Your task to perform on an android device: Open Google Chrome and click the shortcut for Amazon.com Image 0: 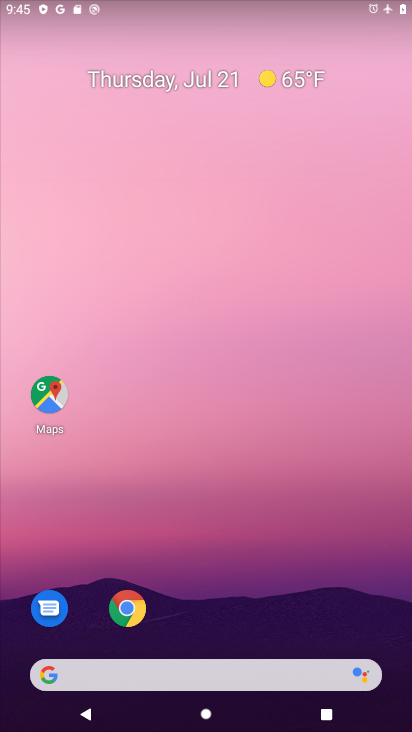
Step 0: click (128, 611)
Your task to perform on an android device: Open Google Chrome and click the shortcut for Amazon.com Image 1: 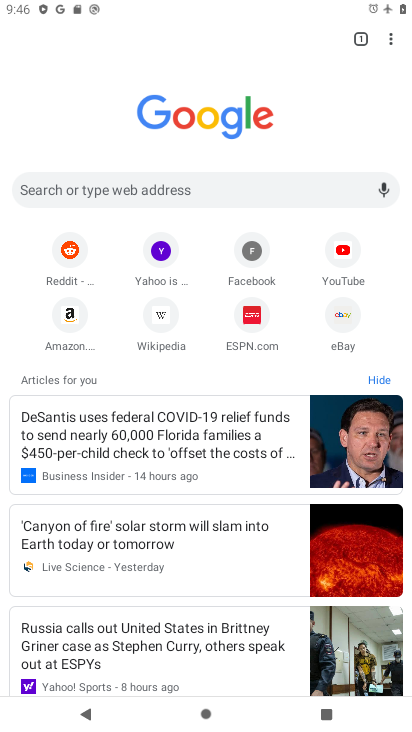
Step 1: click (72, 321)
Your task to perform on an android device: Open Google Chrome and click the shortcut for Amazon.com Image 2: 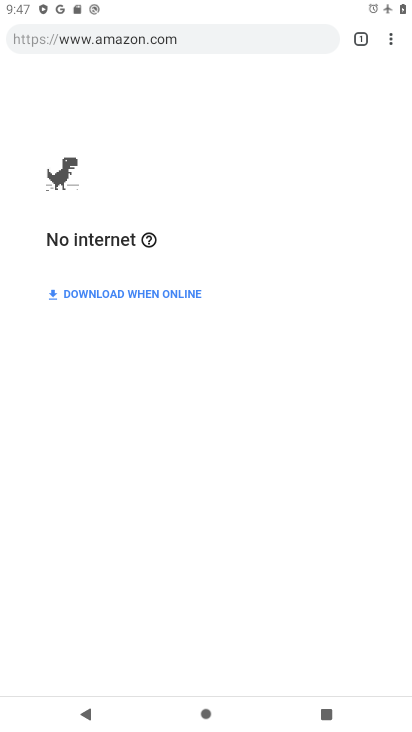
Step 2: press home button
Your task to perform on an android device: Open Google Chrome and click the shortcut for Amazon.com Image 3: 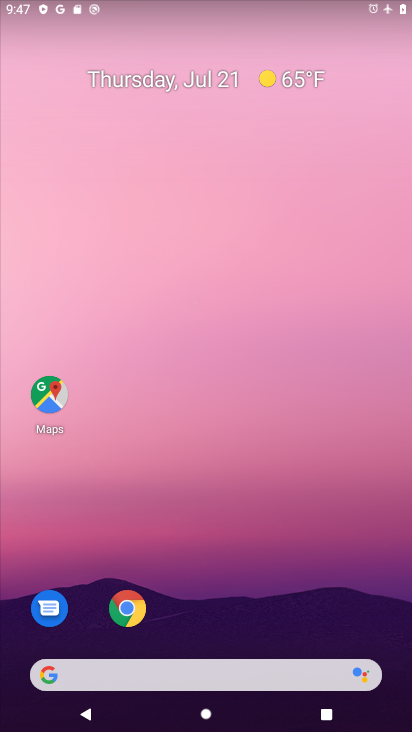
Step 3: drag from (298, 0) to (208, 237)
Your task to perform on an android device: Open Google Chrome and click the shortcut for Amazon.com Image 4: 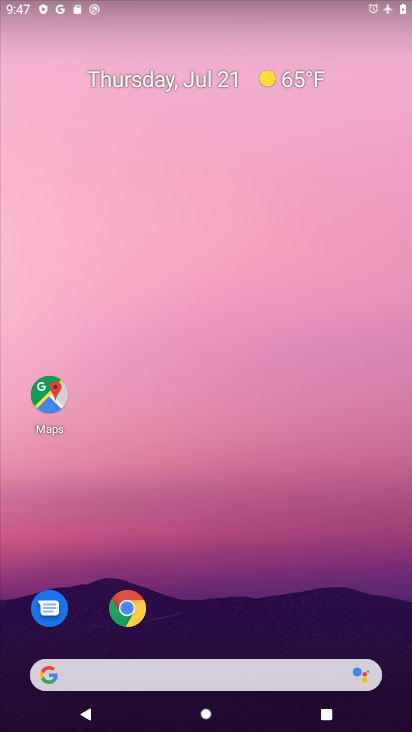
Step 4: drag from (289, 39) to (269, 347)
Your task to perform on an android device: Open Google Chrome and click the shortcut for Amazon.com Image 5: 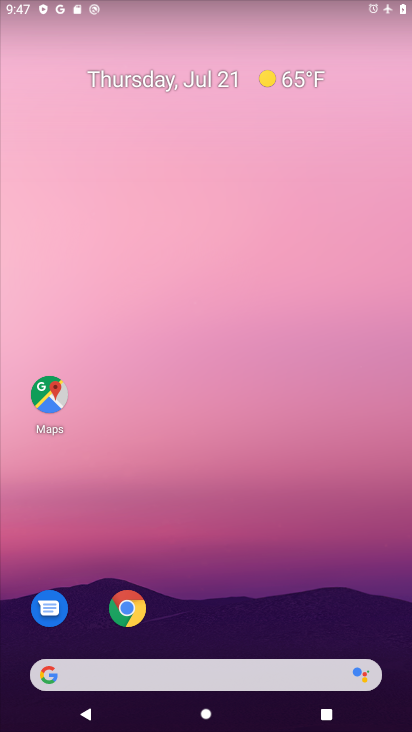
Step 5: drag from (327, 0) to (333, 471)
Your task to perform on an android device: Open Google Chrome and click the shortcut for Amazon.com Image 6: 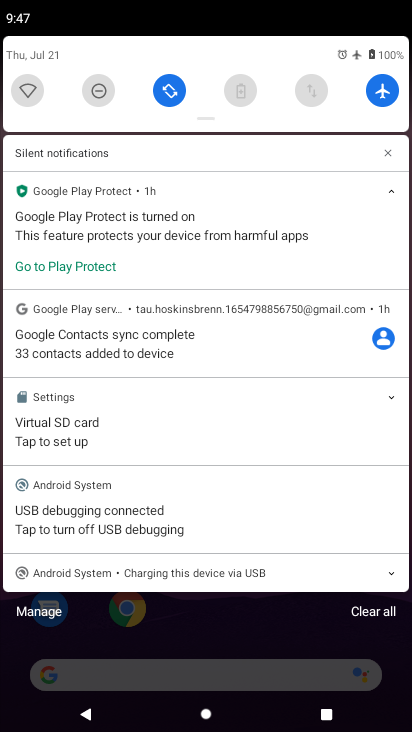
Step 6: click (384, 99)
Your task to perform on an android device: Open Google Chrome and click the shortcut for Amazon.com Image 7: 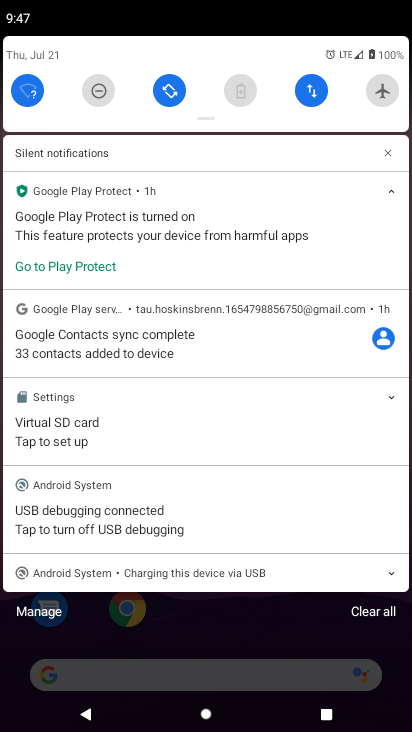
Step 7: click (299, 612)
Your task to perform on an android device: Open Google Chrome and click the shortcut for Amazon.com Image 8: 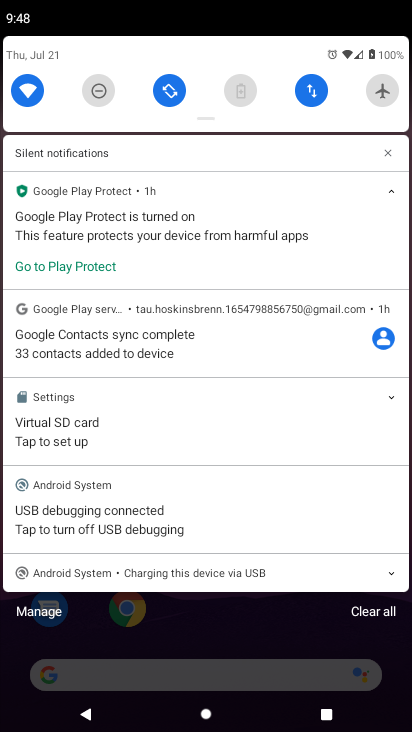
Step 8: click (367, 607)
Your task to perform on an android device: Open Google Chrome and click the shortcut for Amazon.com Image 9: 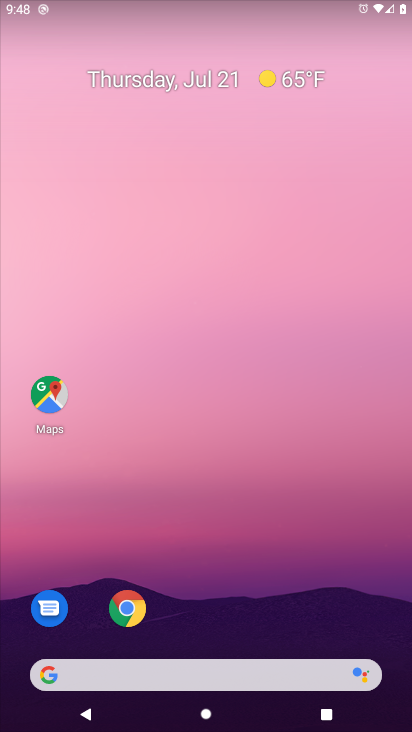
Step 9: click (131, 614)
Your task to perform on an android device: Open Google Chrome and click the shortcut for Amazon.com Image 10: 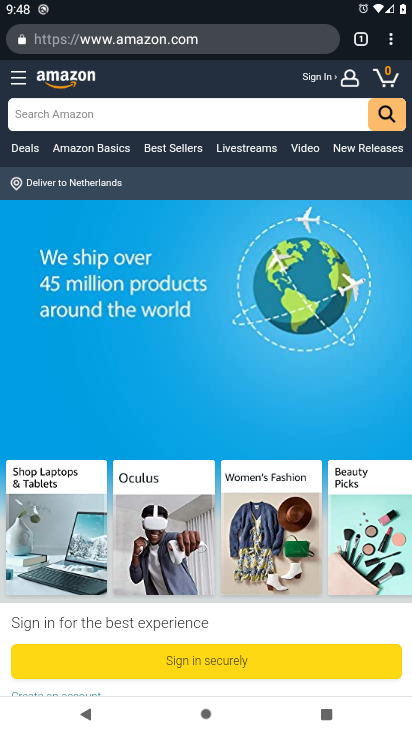
Step 10: task complete